Your task to perform on an android device: Open wifi settings Image 0: 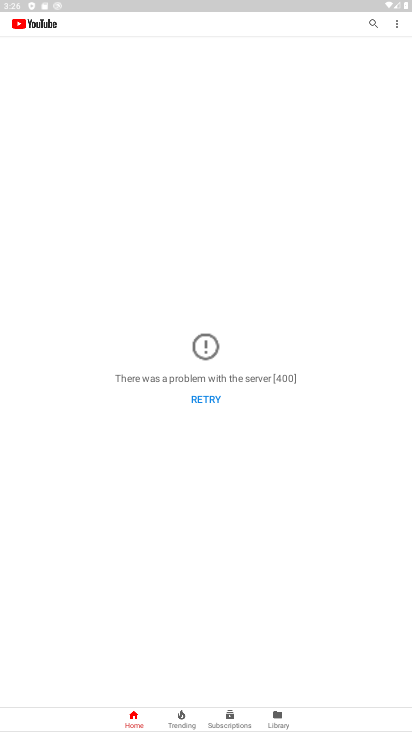
Step 0: press home button
Your task to perform on an android device: Open wifi settings Image 1: 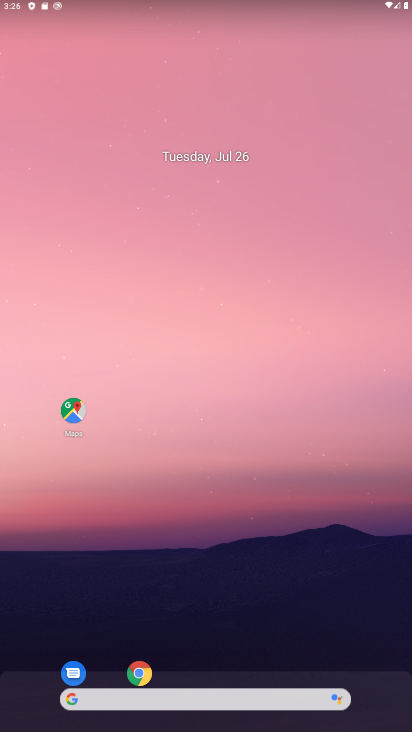
Step 1: drag from (239, 623) to (237, 11)
Your task to perform on an android device: Open wifi settings Image 2: 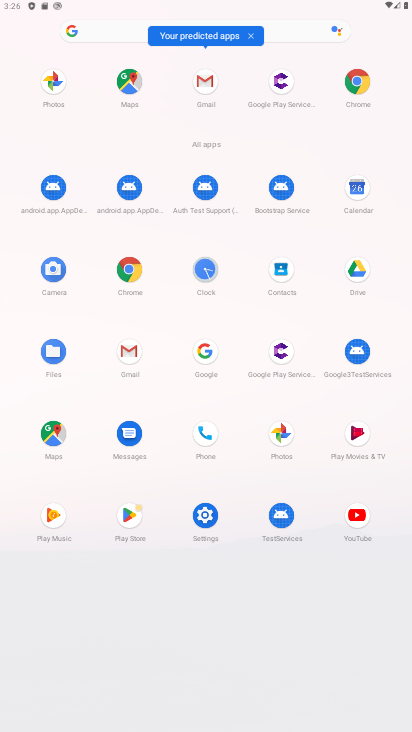
Step 2: click (211, 510)
Your task to perform on an android device: Open wifi settings Image 3: 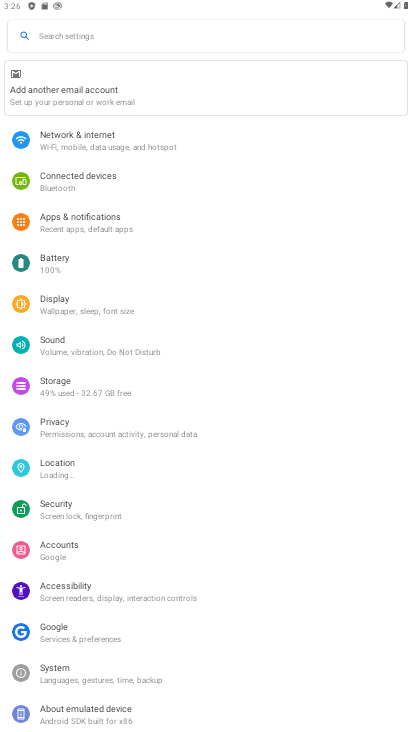
Step 3: click (63, 144)
Your task to perform on an android device: Open wifi settings Image 4: 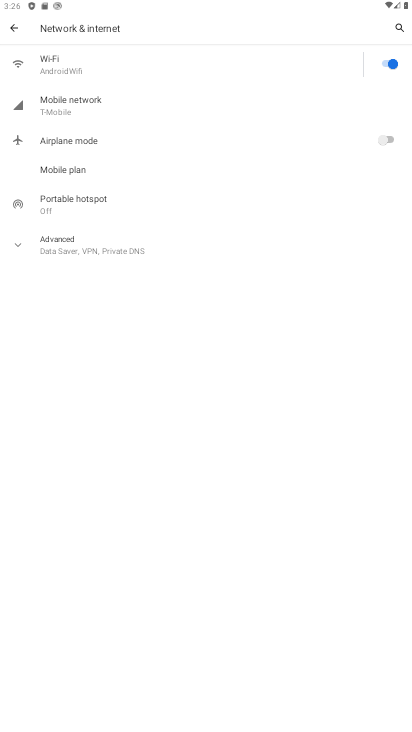
Step 4: click (42, 57)
Your task to perform on an android device: Open wifi settings Image 5: 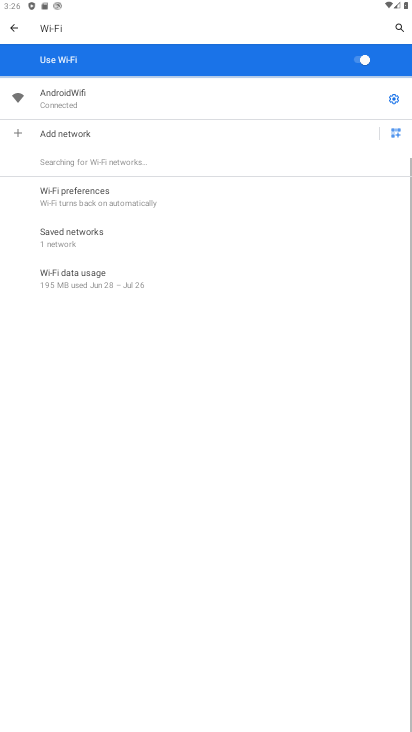
Step 5: click (398, 106)
Your task to perform on an android device: Open wifi settings Image 6: 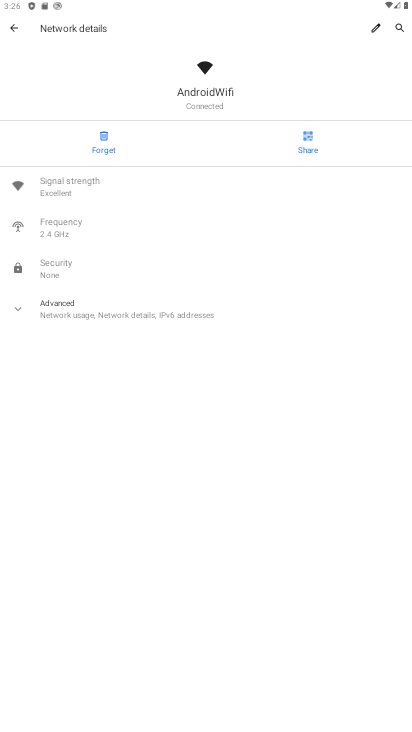
Step 6: task complete